Your task to perform on an android device: Open Reddit.com Image 0: 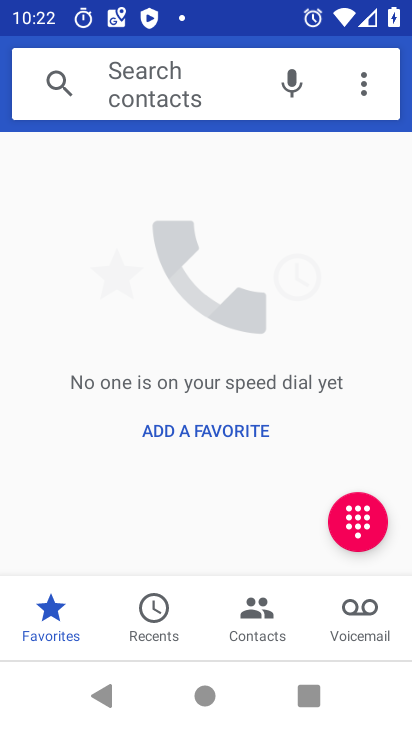
Step 0: press home button
Your task to perform on an android device: Open Reddit.com Image 1: 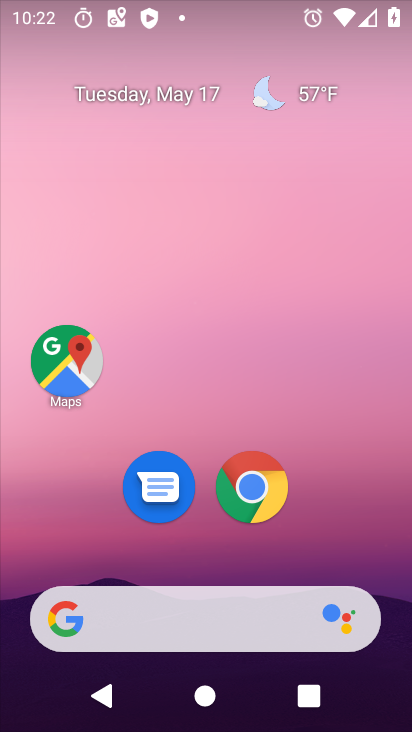
Step 1: click (246, 482)
Your task to perform on an android device: Open Reddit.com Image 2: 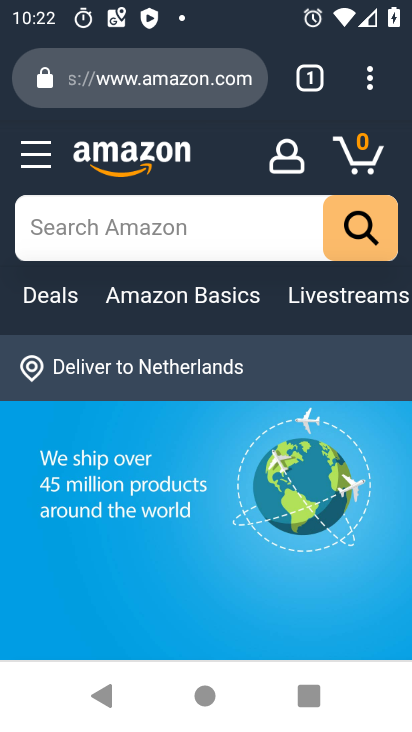
Step 2: click (373, 88)
Your task to perform on an android device: Open Reddit.com Image 3: 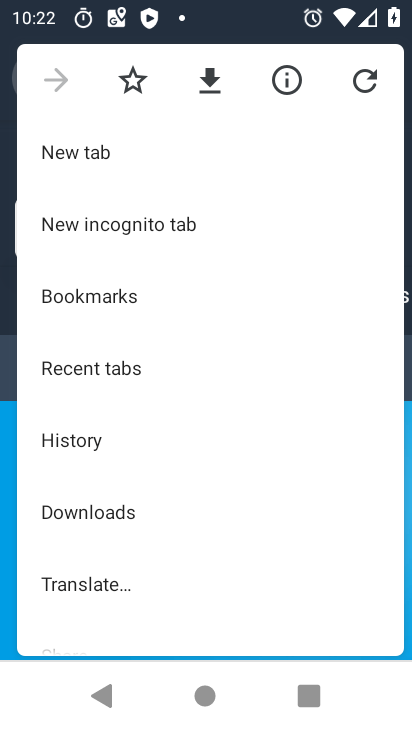
Step 3: click (83, 151)
Your task to perform on an android device: Open Reddit.com Image 4: 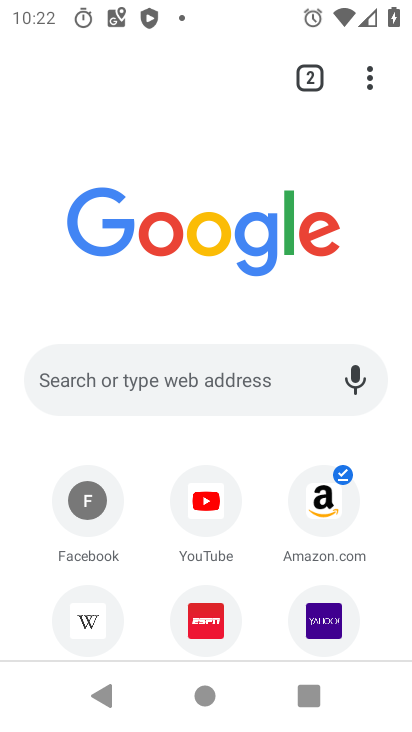
Step 4: click (179, 382)
Your task to perform on an android device: Open Reddit.com Image 5: 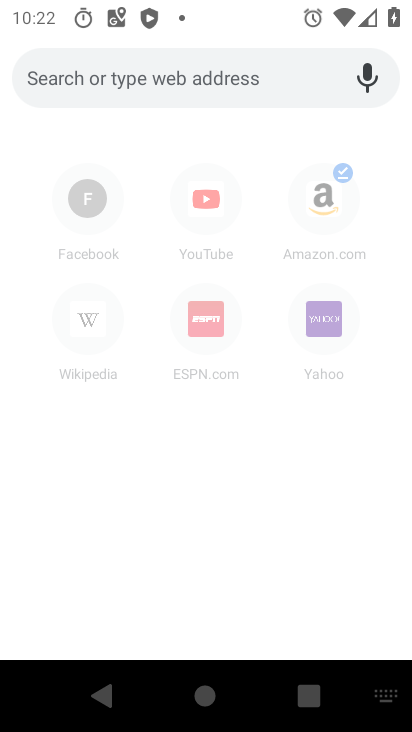
Step 5: type "Reddit.com"
Your task to perform on an android device: Open Reddit.com Image 6: 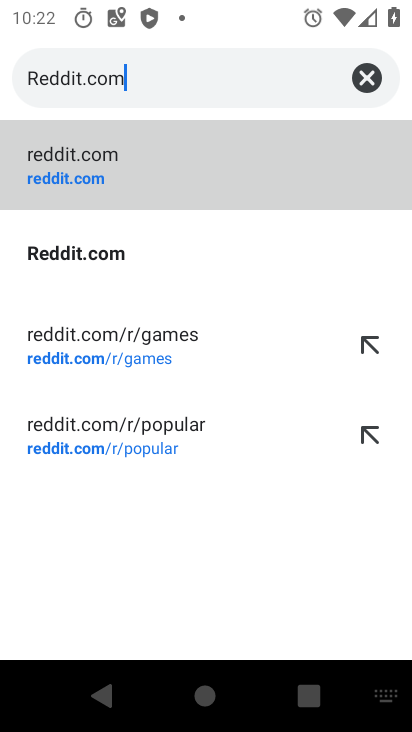
Step 6: click (45, 163)
Your task to perform on an android device: Open Reddit.com Image 7: 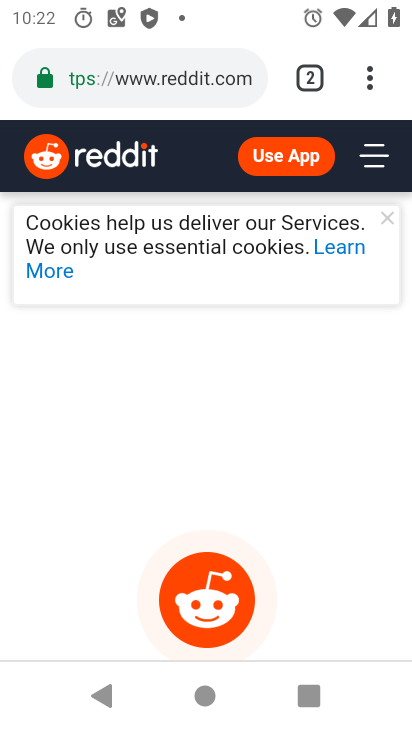
Step 7: task complete